Your task to perform on an android device: Open my contact list Image 0: 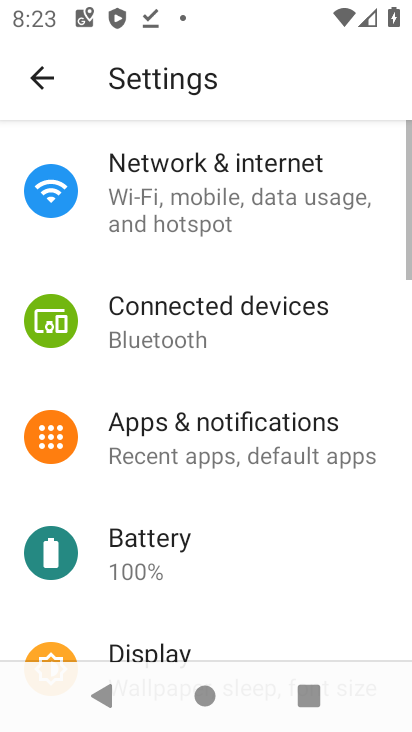
Step 0: press back button
Your task to perform on an android device: Open my contact list Image 1: 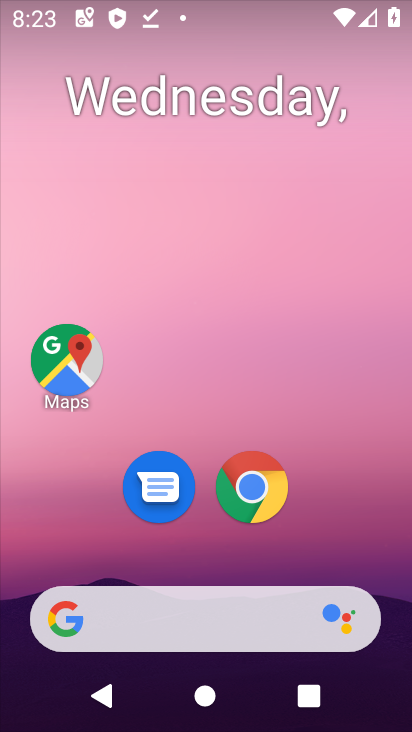
Step 1: drag from (222, 584) to (149, 26)
Your task to perform on an android device: Open my contact list Image 2: 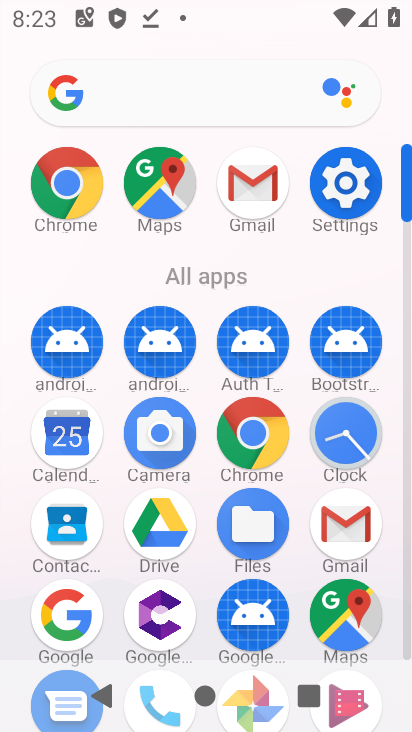
Step 2: click (71, 537)
Your task to perform on an android device: Open my contact list Image 3: 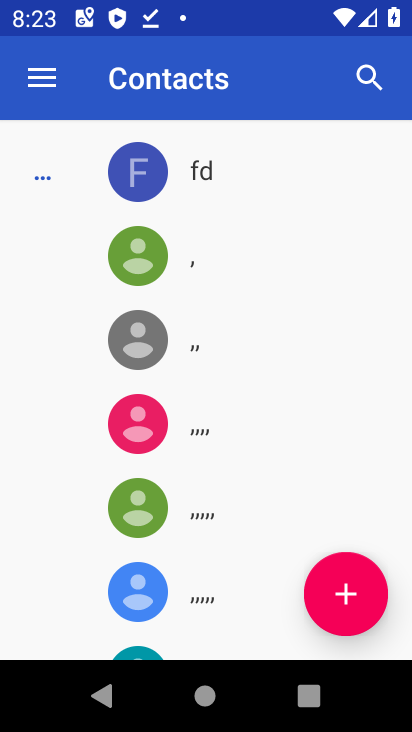
Step 3: task complete